Your task to perform on an android device: Show the shopping cart on amazon.com. Search for macbook on amazon.com, select the first entry, add it to the cart, then select checkout. Image 0: 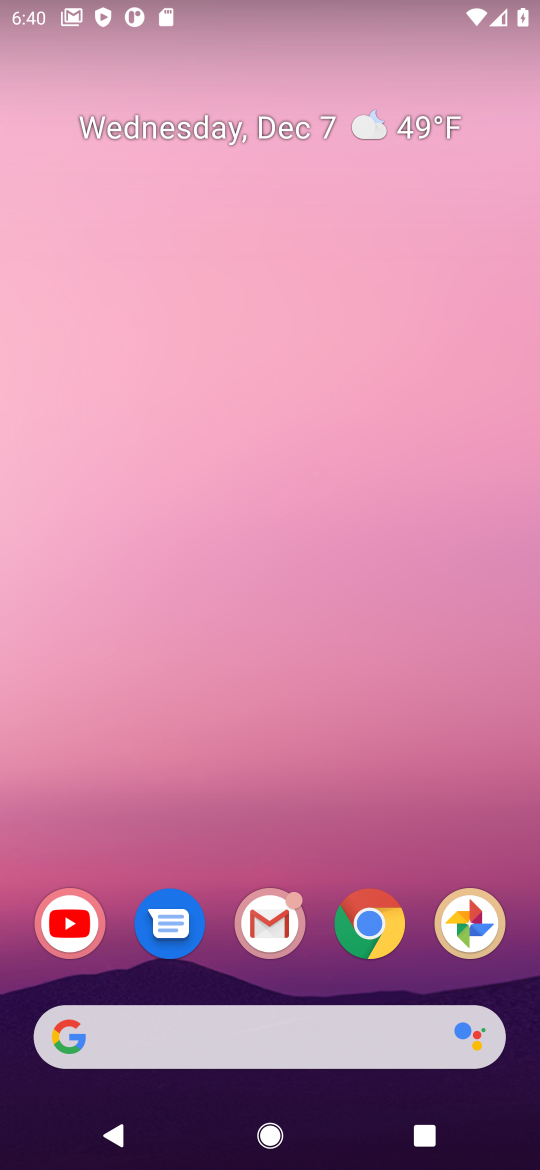
Step 0: drag from (318, 949) to (318, 480)
Your task to perform on an android device: Show the shopping cart on amazon.com. Search for macbook on amazon.com, select the first entry, add it to the cart, then select checkout. Image 1: 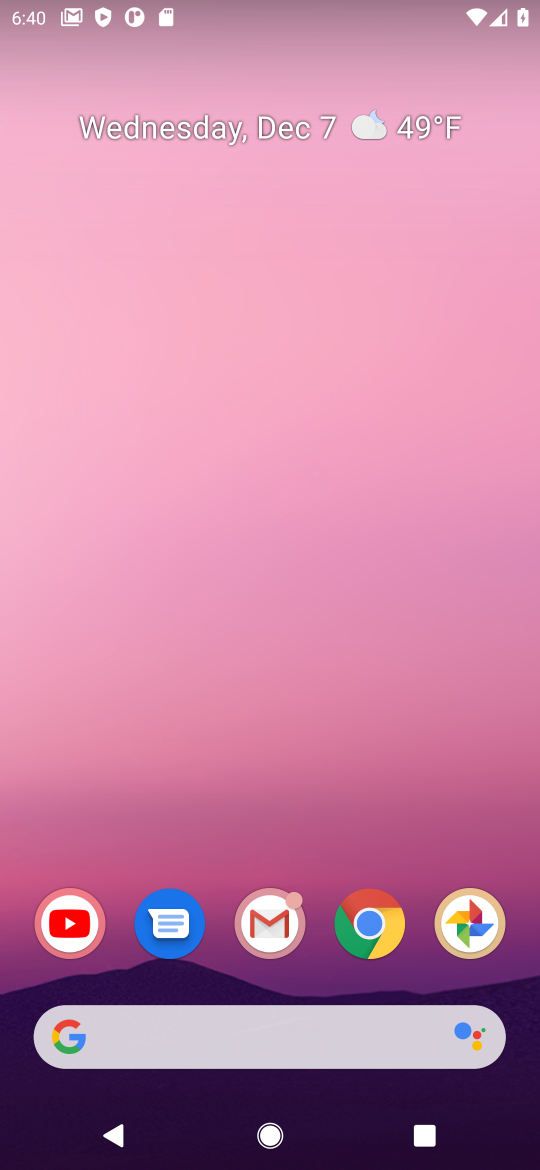
Step 1: drag from (227, 771) to (227, 452)
Your task to perform on an android device: Show the shopping cart on amazon.com. Search for macbook on amazon.com, select the first entry, add it to the cart, then select checkout. Image 2: 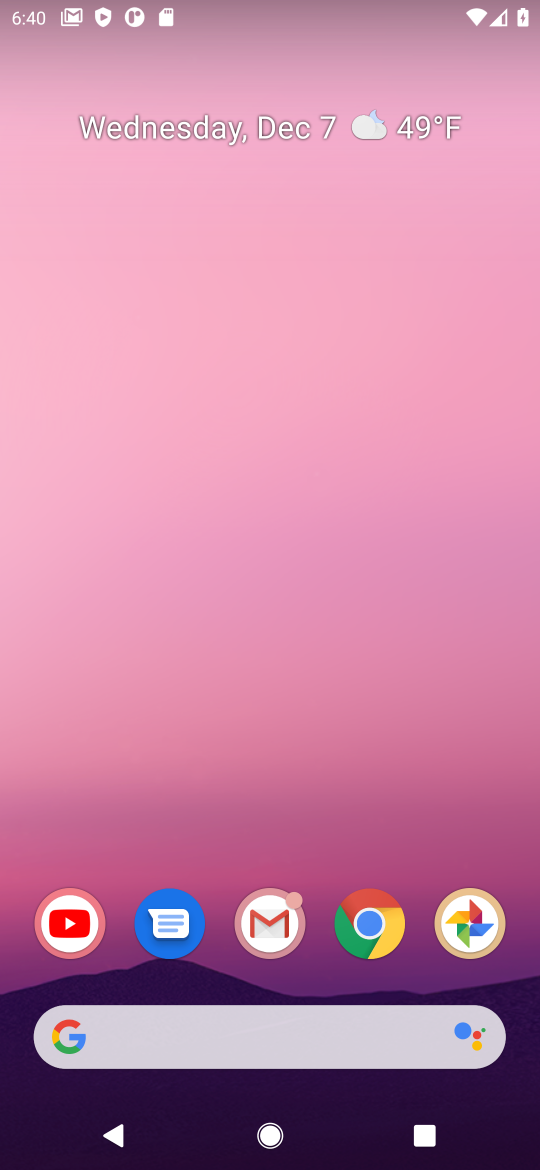
Step 2: drag from (260, 921) to (260, 453)
Your task to perform on an android device: Show the shopping cart on amazon.com. Search for macbook on amazon.com, select the first entry, add it to the cart, then select checkout. Image 3: 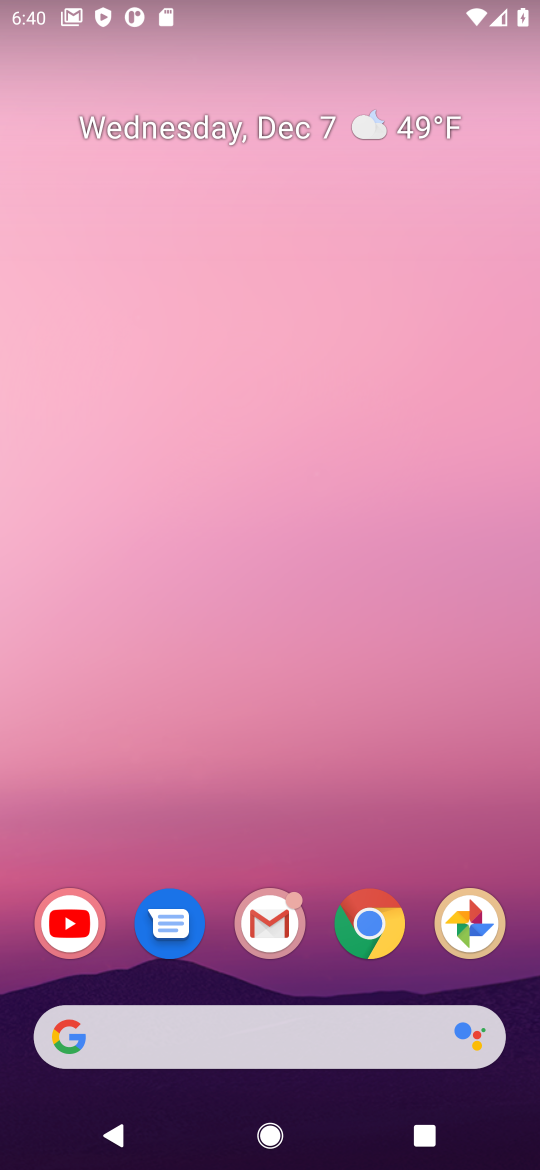
Step 3: drag from (222, 850) to (162, 87)
Your task to perform on an android device: Show the shopping cart on amazon.com. Search for macbook on amazon.com, select the first entry, add it to the cart, then select checkout. Image 4: 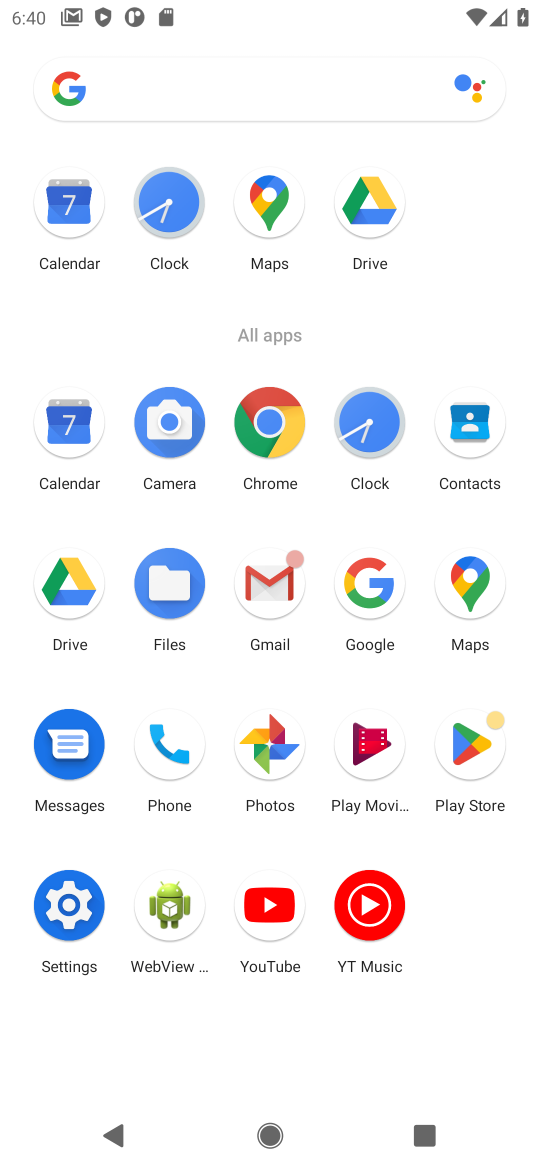
Step 4: click (363, 584)
Your task to perform on an android device: Show the shopping cart on amazon.com. Search for macbook on amazon.com, select the first entry, add it to the cart, then select checkout. Image 5: 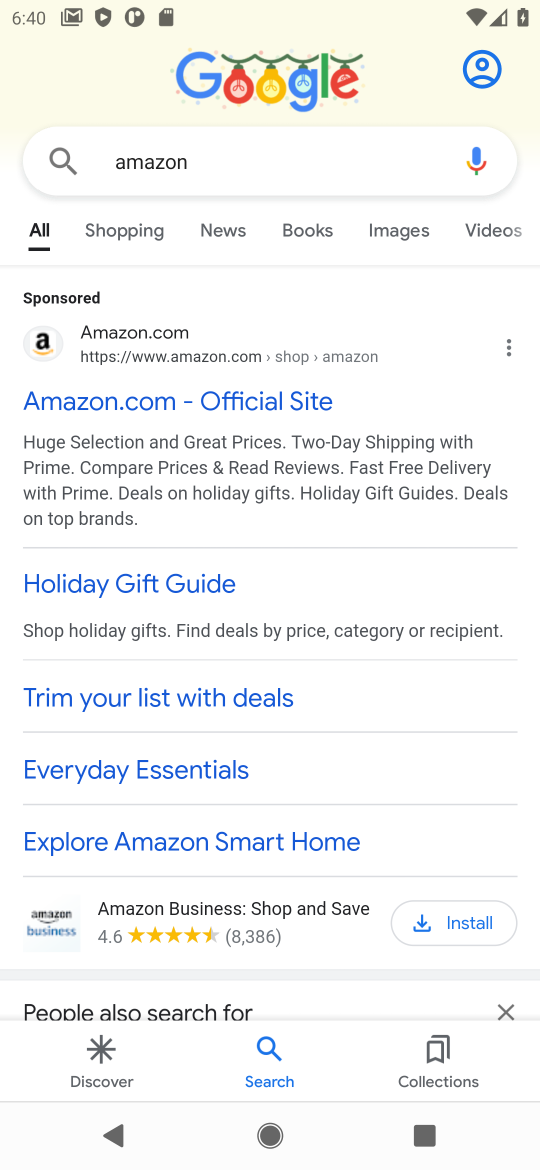
Step 5: click (164, 160)
Your task to perform on an android device: Show the shopping cart on amazon.com. Search for macbook on amazon.com, select the first entry, add it to the cart, then select checkout. Image 6: 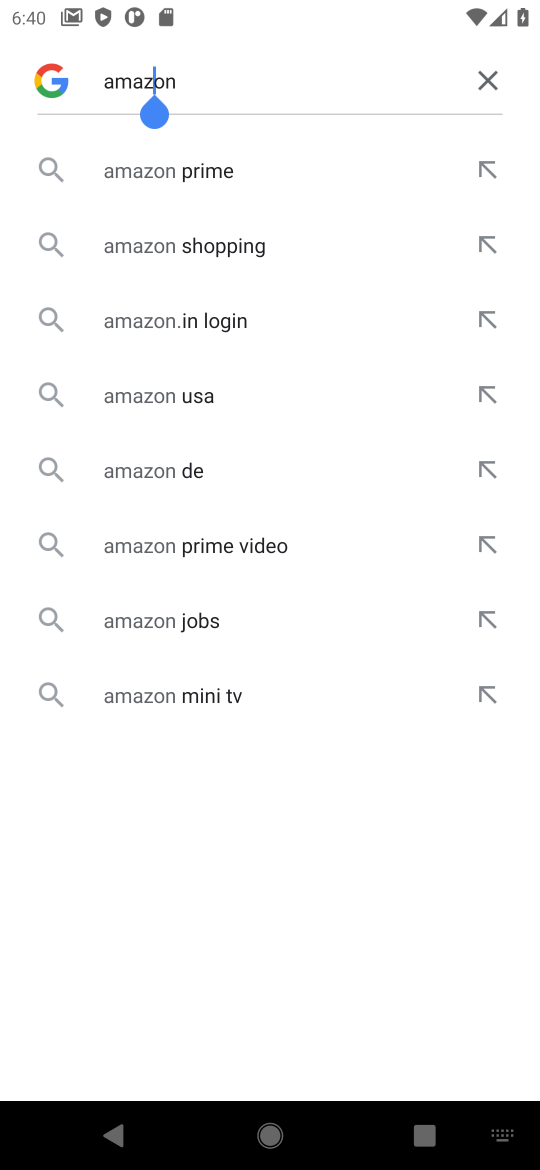
Step 6: click (477, 87)
Your task to perform on an android device: Show the shopping cart on amazon.com. Search for macbook on amazon.com, select the first entry, add it to the cart, then select checkout. Image 7: 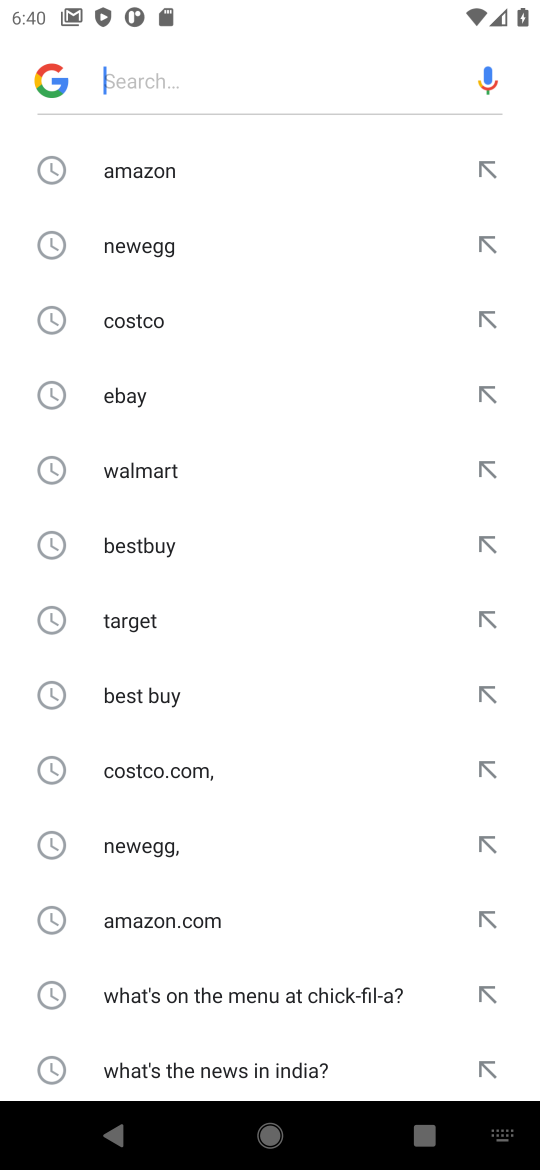
Step 7: click (131, 175)
Your task to perform on an android device: Show the shopping cart on amazon.com. Search for macbook on amazon.com, select the first entry, add it to the cart, then select checkout. Image 8: 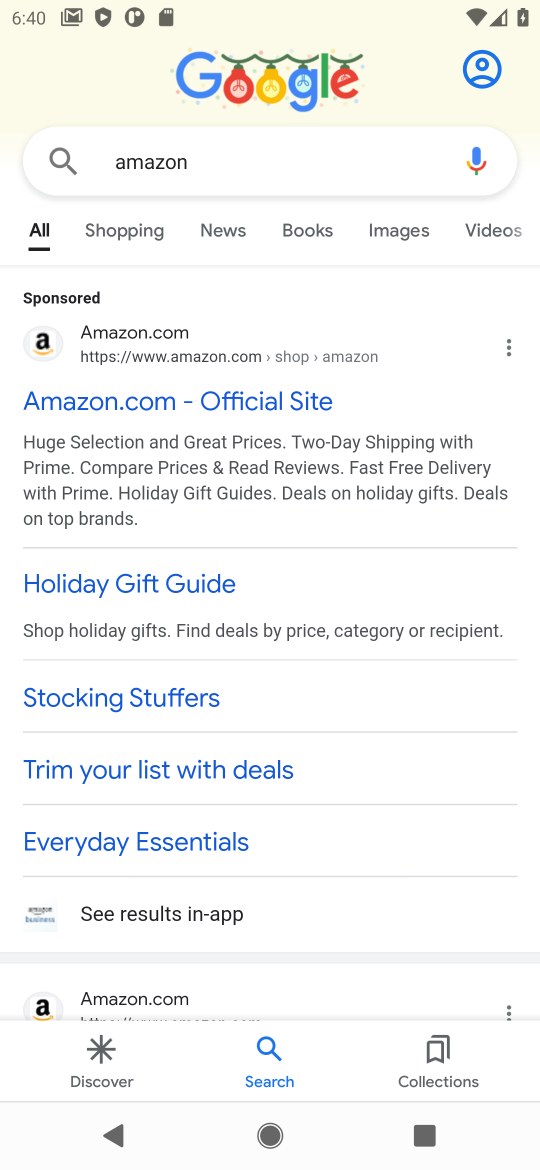
Step 8: click (94, 415)
Your task to perform on an android device: Show the shopping cart on amazon.com. Search for macbook on amazon.com, select the first entry, add it to the cart, then select checkout. Image 9: 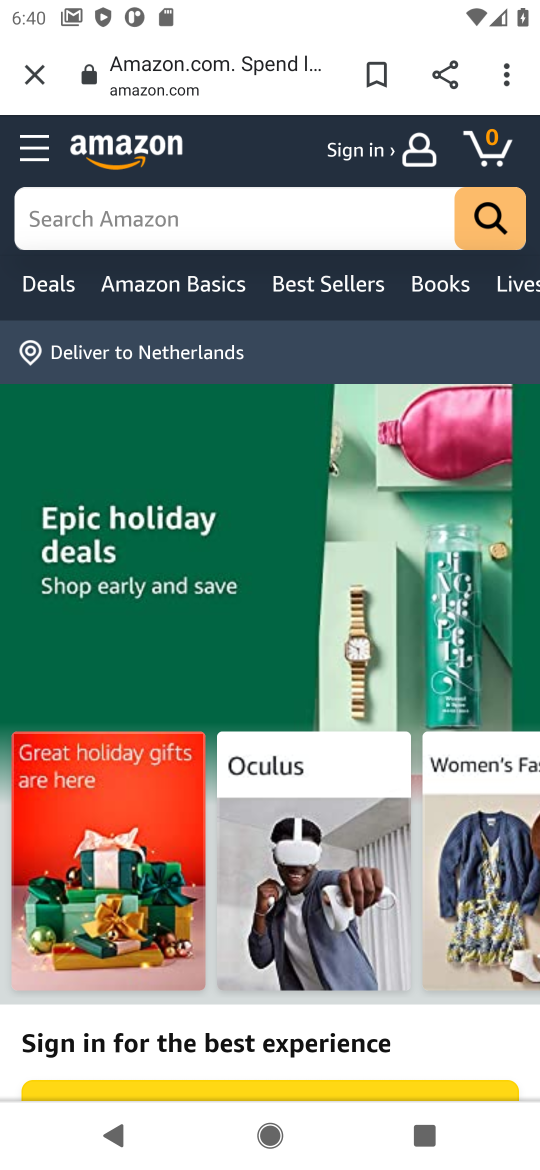
Step 9: click (488, 143)
Your task to perform on an android device: Show the shopping cart on amazon.com. Search for macbook on amazon.com, select the first entry, add it to the cart, then select checkout. Image 10: 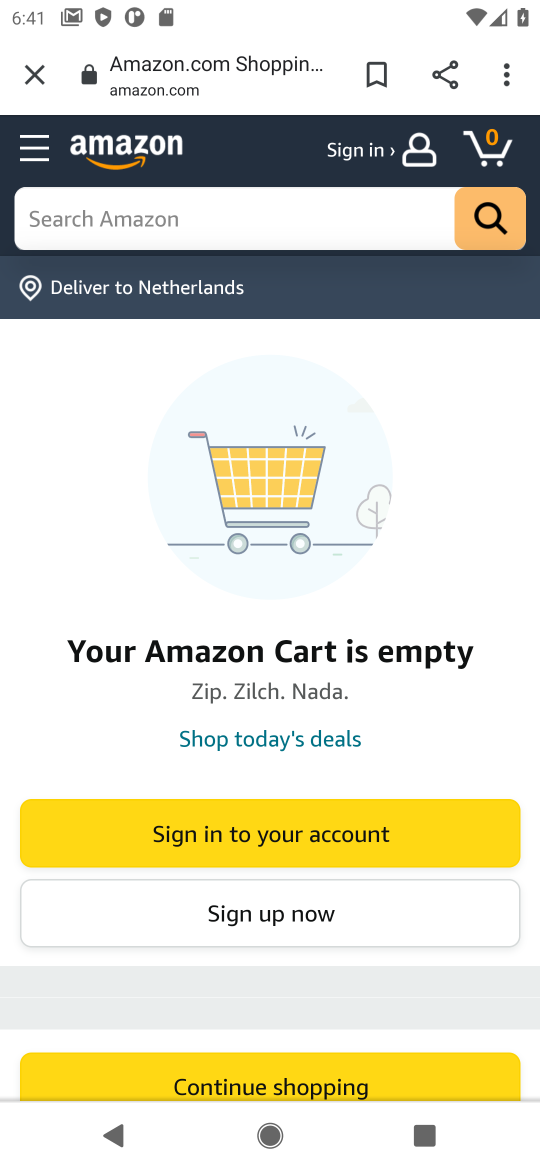
Step 10: click (86, 209)
Your task to perform on an android device: Show the shopping cart on amazon.com. Search for macbook on amazon.com, select the first entry, add it to the cart, then select checkout. Image 11: 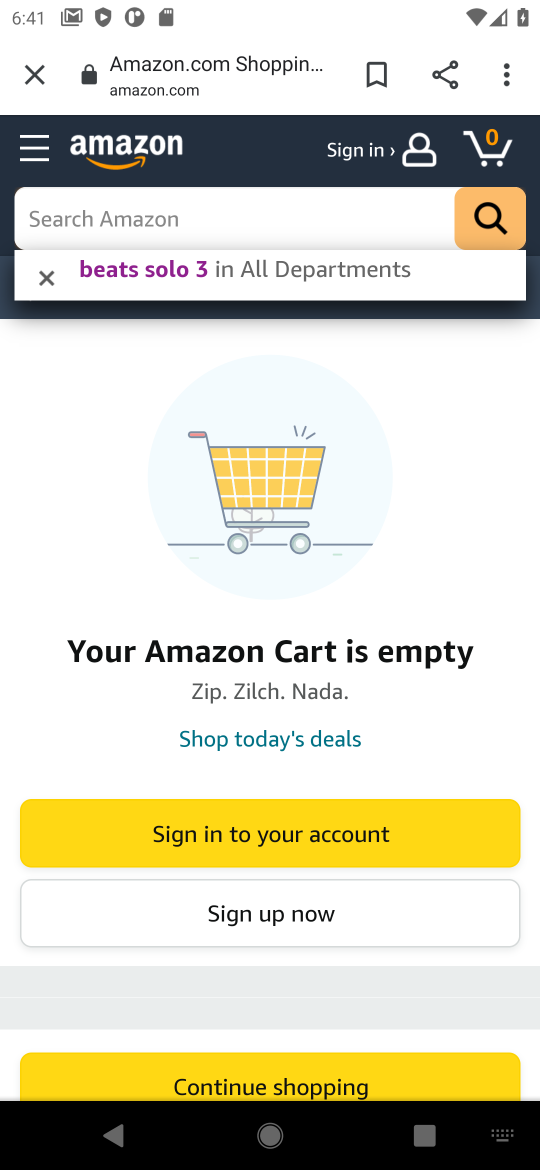
Step 11: type "macbook"
Your task to perform on an android device: Show the shopping cart on amazon.com. Search for macbook on amazon.com, select the first entry, add it to the cart, then select checkout. Image 12: 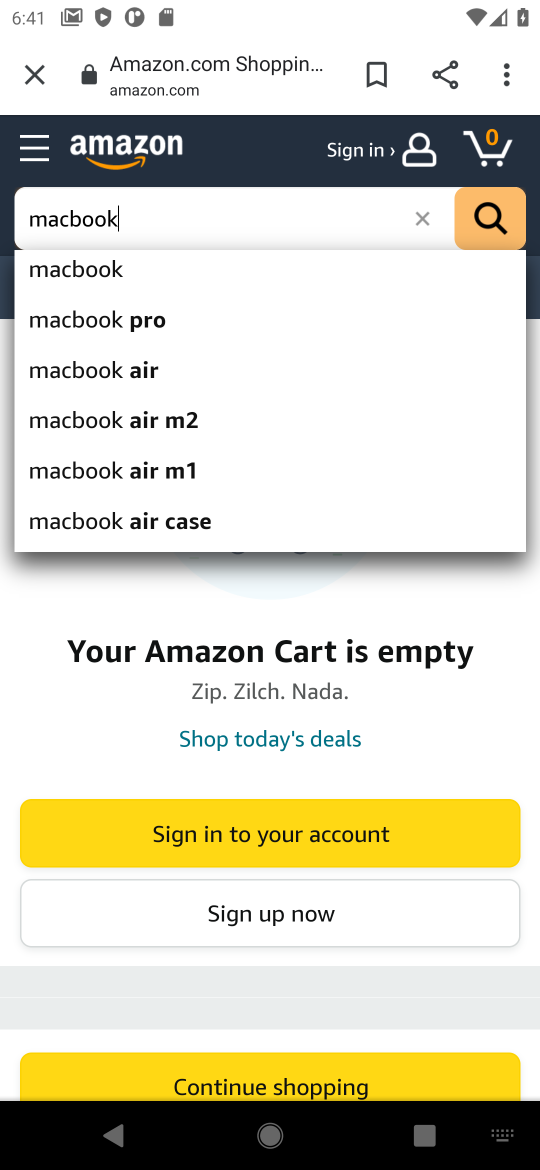
Step 12: click (100, 258)
Your task to perform on an android device: Show the shopping cart on amazon.com. Search for macbook on amazon.com, select the first entry, add it to the cart, then select checkout. Image 13: 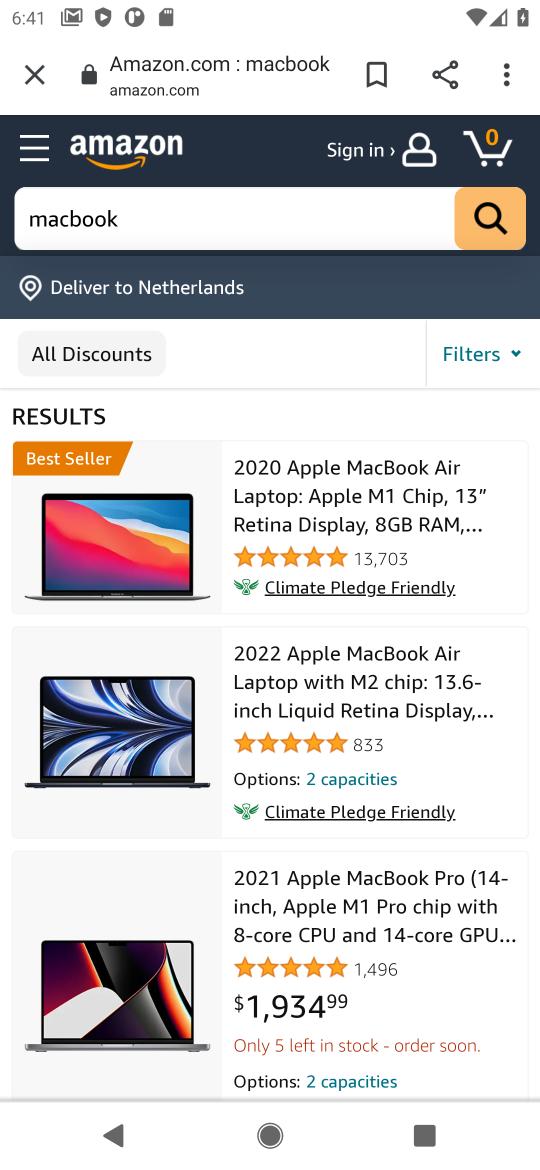
Step 13: click (326, 525)
Your task to perform on an android device: Show the shopping cart on amazon.com. Search for macbook on amazon.com, select the first entry, add it to the cart, then select checkout. Image 14: 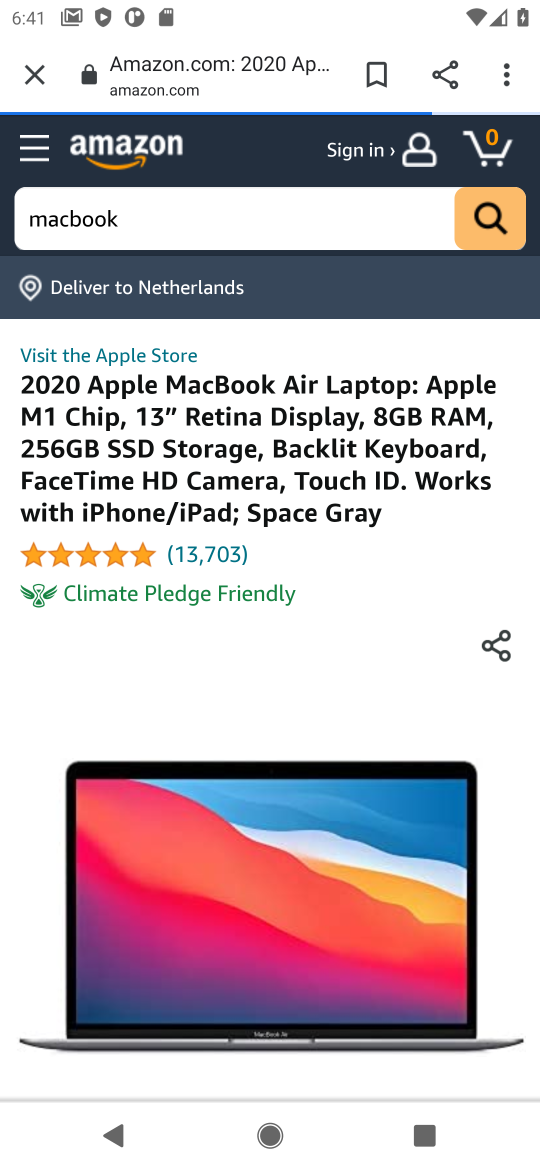
Step 14: task complete